Your task to perform on an android device: add a label to a message in the gmail app Image 0: 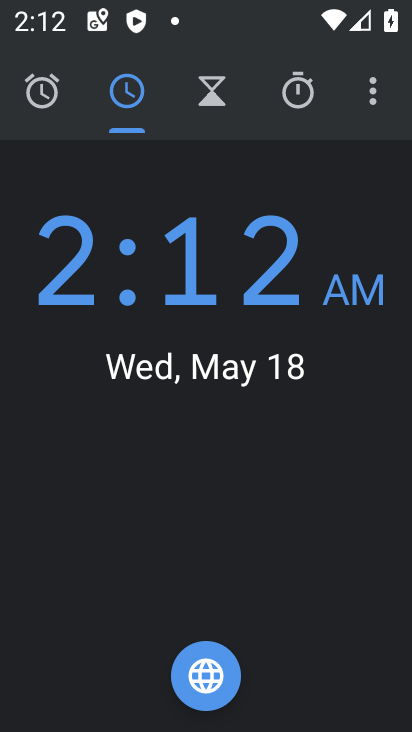
Step 0: press back button
Your task to perform on an android device: add a label to a message in the gmail app Image 1: 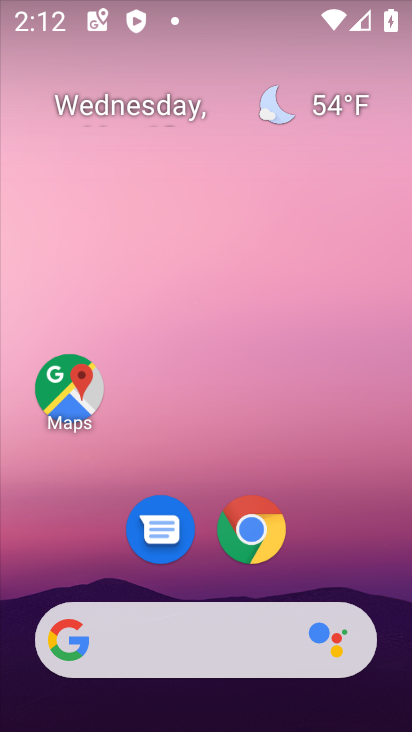
Step 1: drag from (203, 590) to (264, 119)
Your task to perform on an android device: add a label to a message in the gmail app Image 2: 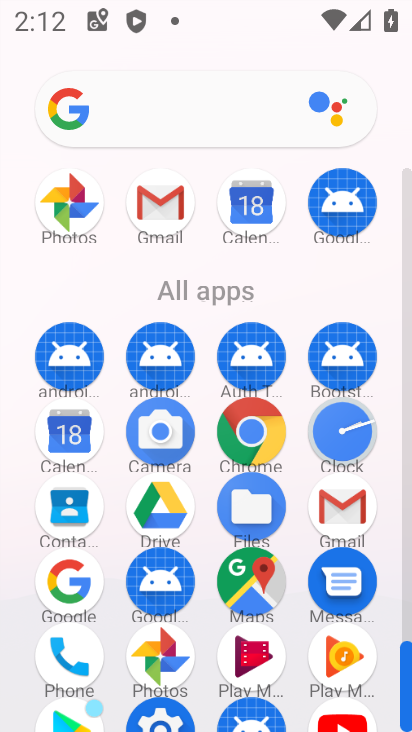
Step 2: click (145, 186)
Your task to perform on an android device: add a label to a message in the gmail app Image 3: 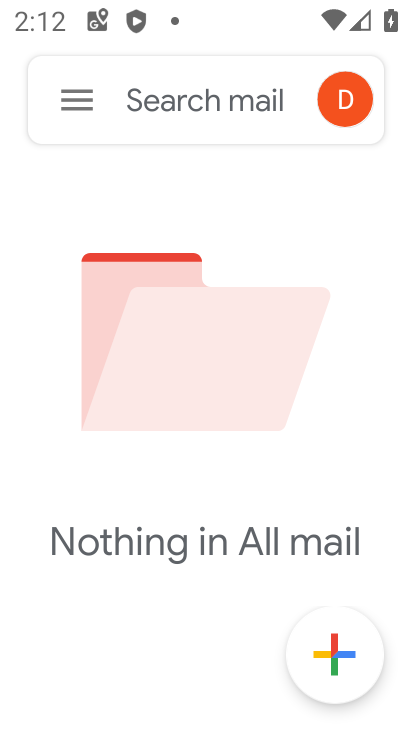
Step 3: click (72, 92)
Your task to perform on an android device: add a label to a message in the gmail app Image 4: 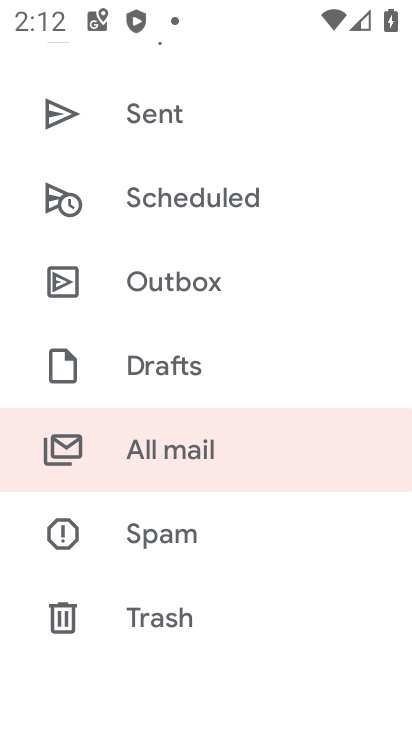
Step 4: task complete